Your task to perform on an android device: create a new album in the google photos Image 0: 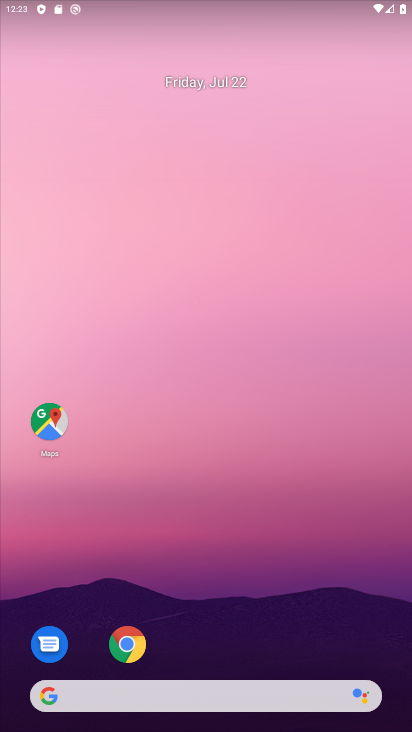
Step 0: drag from (203, 668) to (204, 341)
Your task to perform on an android device: create a new album in the google photos Image 1: 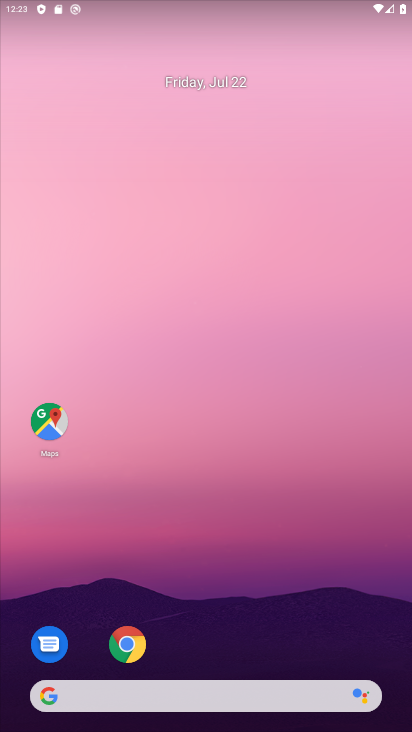
Step 1: drag from (172, 647) to (193, 176)
Your task to perform on an android device: create a new album in the google photos Image 2: 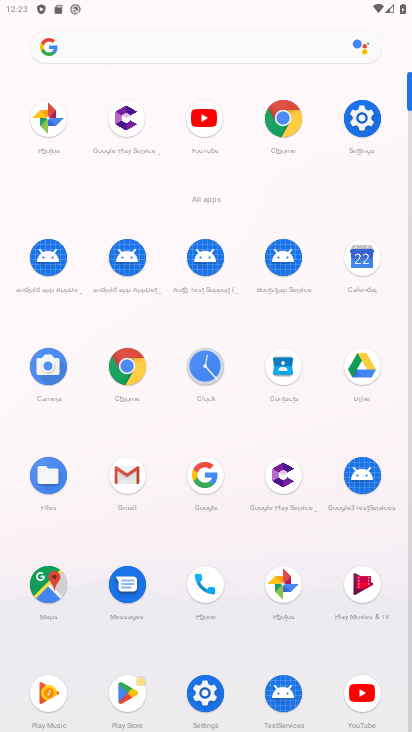
Step 2: click (47, 109)
Your task to perform on an android device: create a new album in the google photos Image 3: 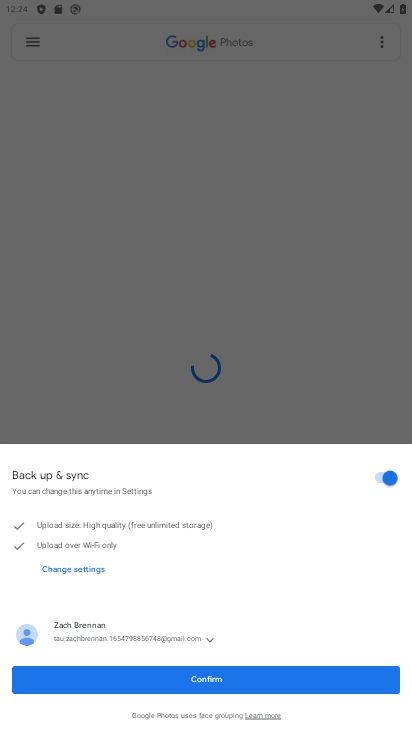
Step 3: click (113, 670)
Your task to perform on an android device: create a new album in the google photos Image 4: 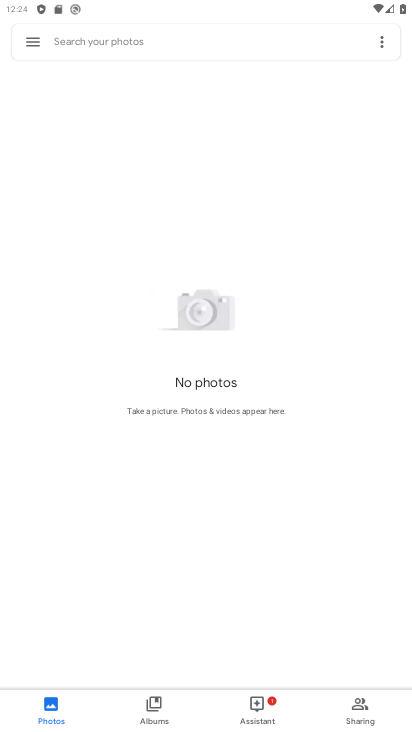
Step 4: task complete